Your task to perform on an android device: Open Google Chrome and open the bookmarks view Image 0: 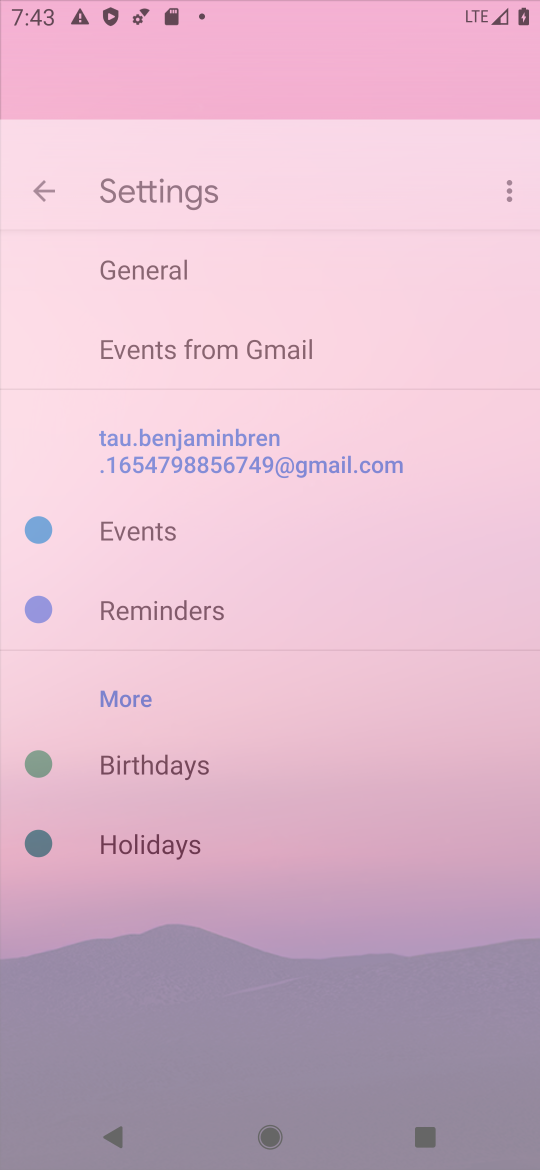
Step 0: drag from (280, 912) to (369, 386)
Your task to perform on an android device: Open Google Chrome and open the bookmarks view Image 1: 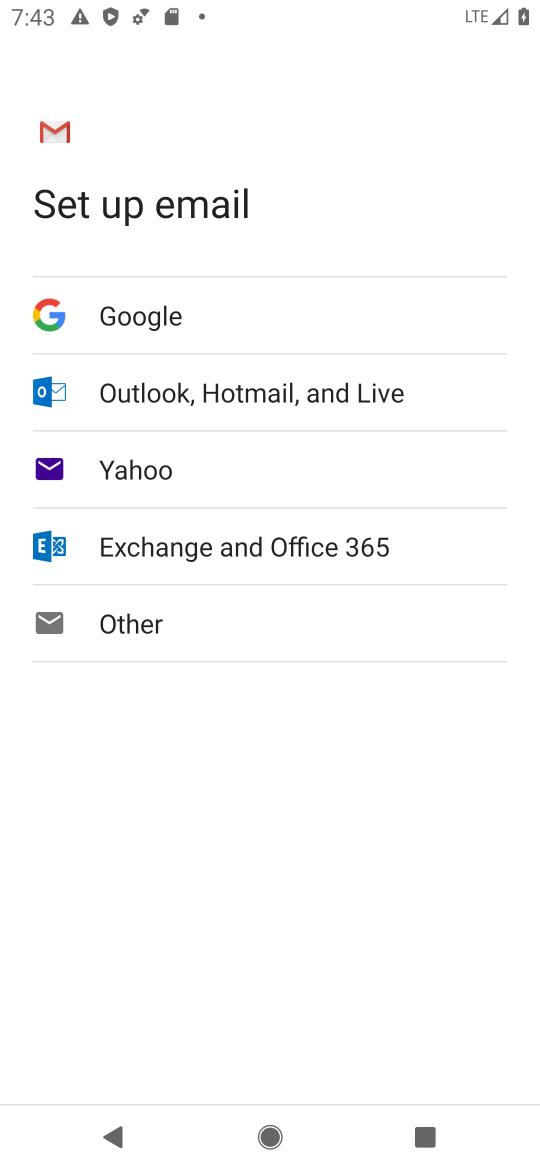
Step 1: drag from (286, 509) to (240, 712)
Your task to perform on an android device: Open Google Chrome and open the bookmarks view Image 2: 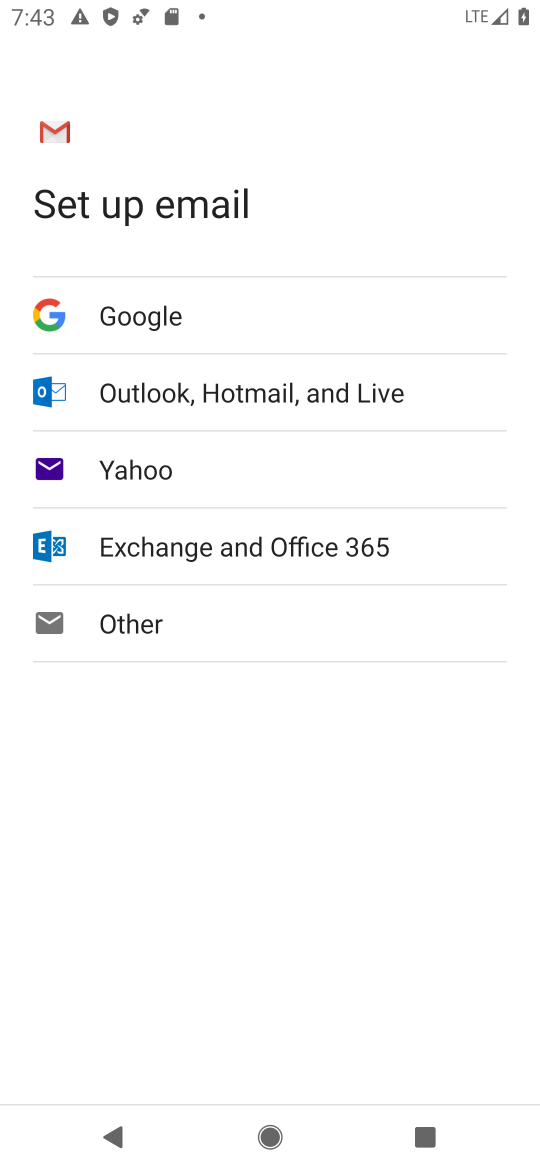
Step 2: drag from (273, 928) to (412, 589)
Your task to perform on an android device: Open Google Chrome and open the bookmarks view Image 3: 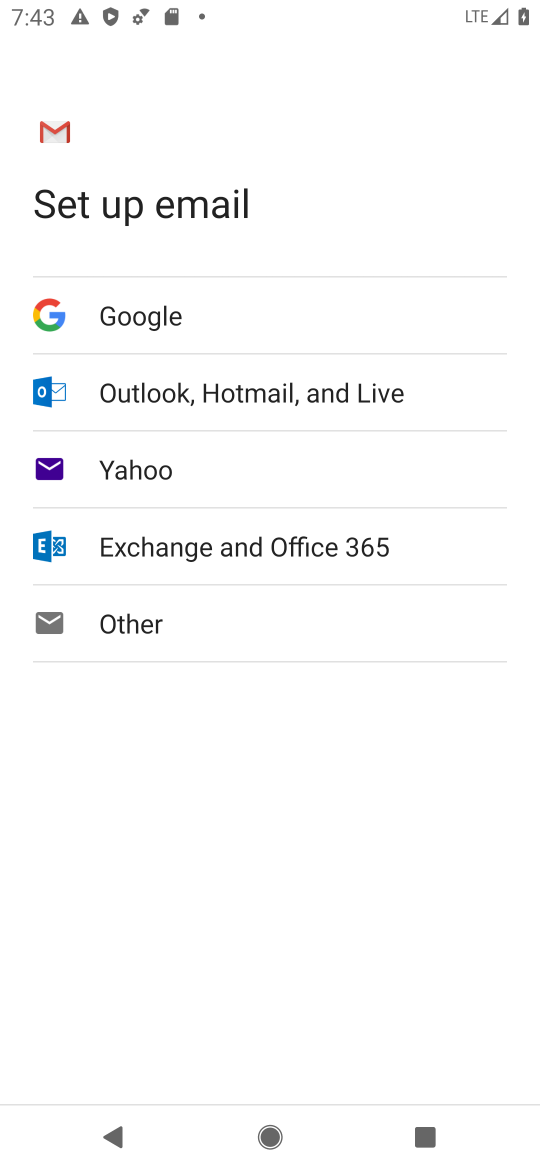
Step 3: press home button
Your task to perform on an android device: Open Google Chrome and open the bookmarks view Image 4: 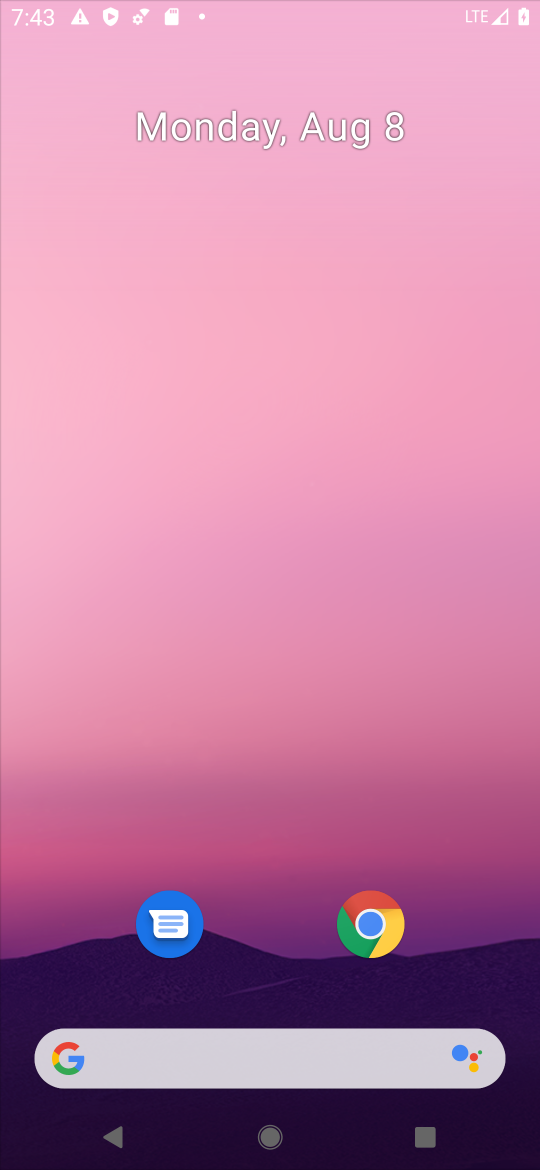
Step 4: drag from (228, 987) to (344, 441)
Your task to perform on an android device: Open Google Chrome and open the bookmarks view Image 5: 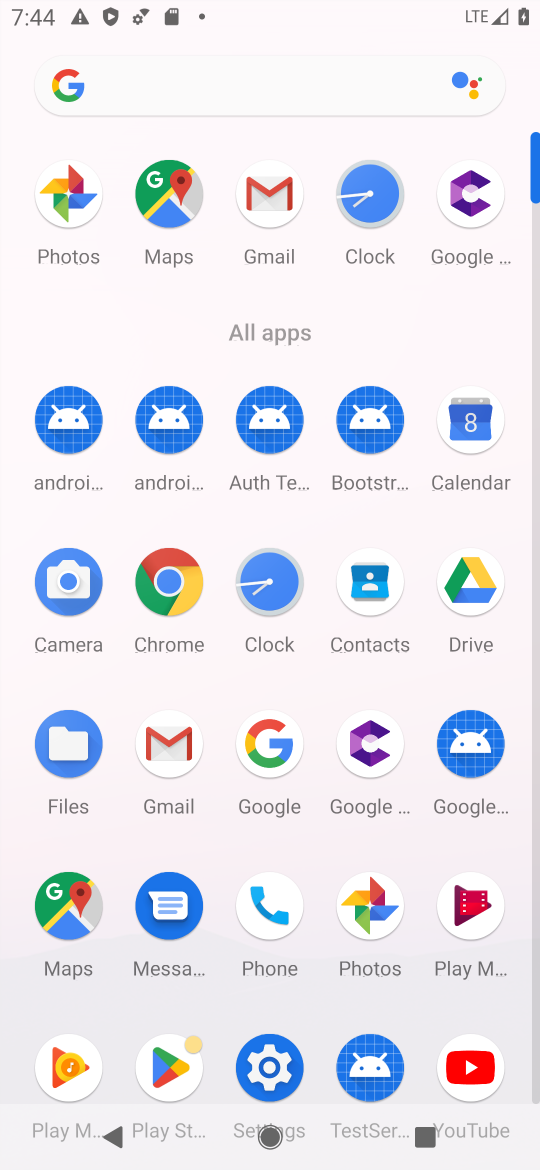
Step 5: click (163, 576)
Your task to perform on an android device: Open Google Chrome and open the bookmarks view Image 6: 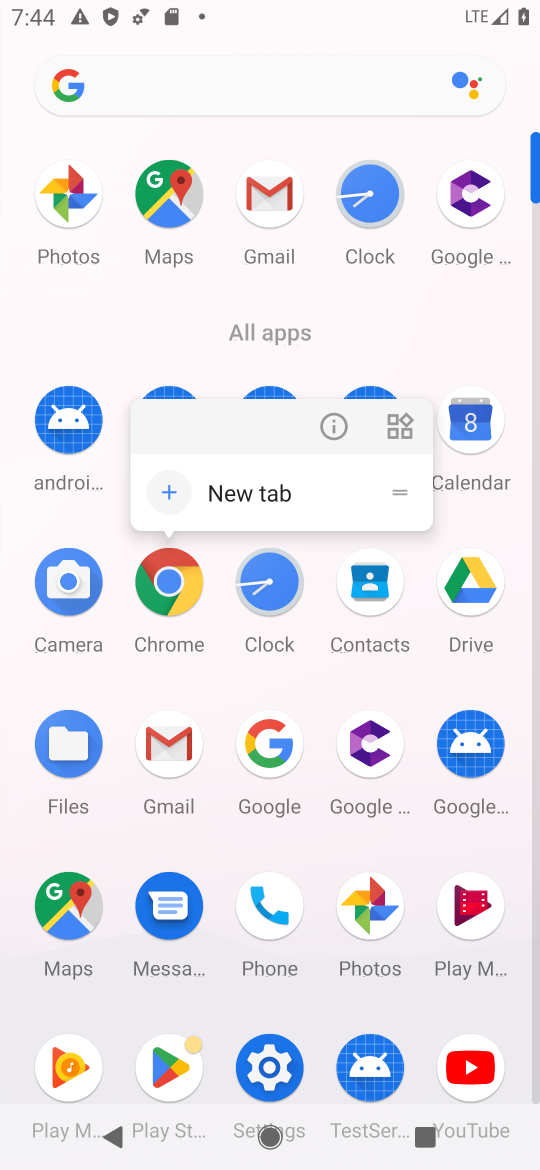
Step 6: click (327, 434)
Your task to perform on an android device: Open Google Chrome and open the bookmarks view Image 7: 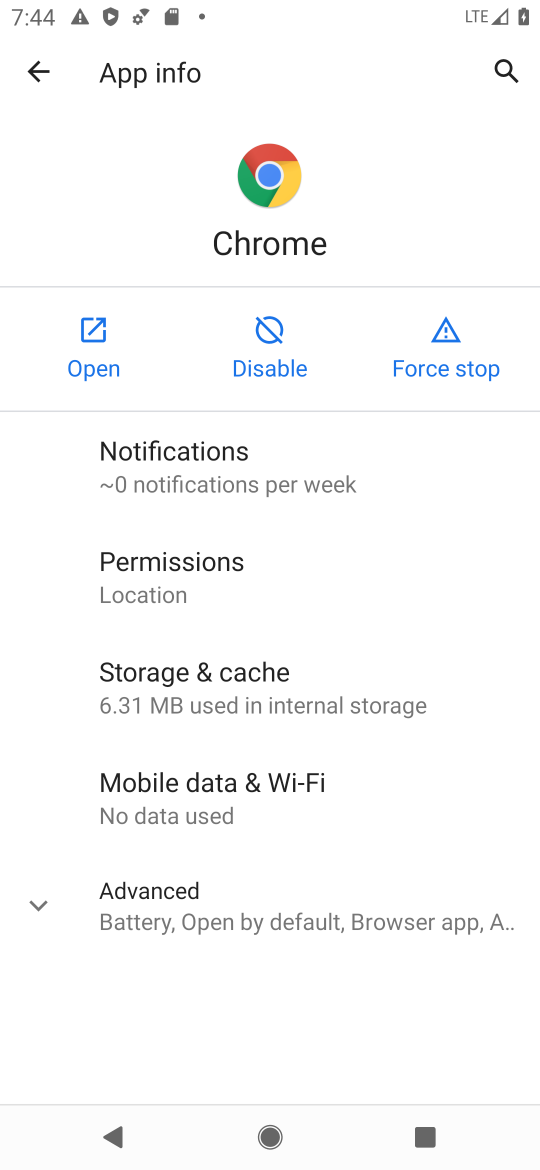
Step 7: click (82, 312)
Your task to perform on an android device: Open Google Chrome and open the bookmarks view Image 8: 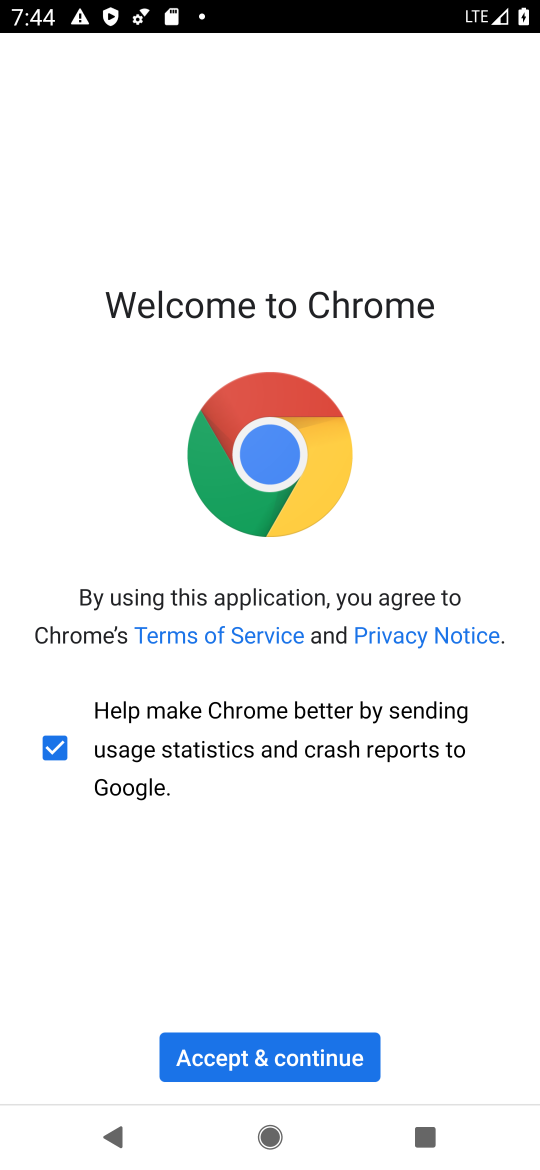
Step 8: click (228, 1075)
Your task to perform on an android device: Open Google Chrome and open the bookmarks view Image 9: 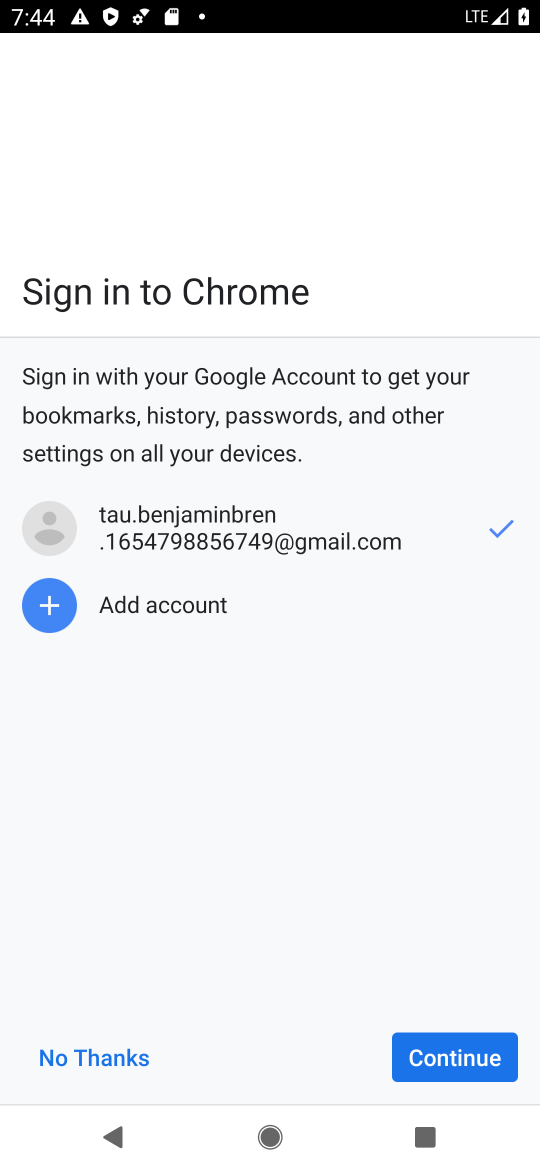
Step 9: click (459, 1040)
Your task to perform on an android device: Open Google Chrome and open the bookmarks view Image 10: 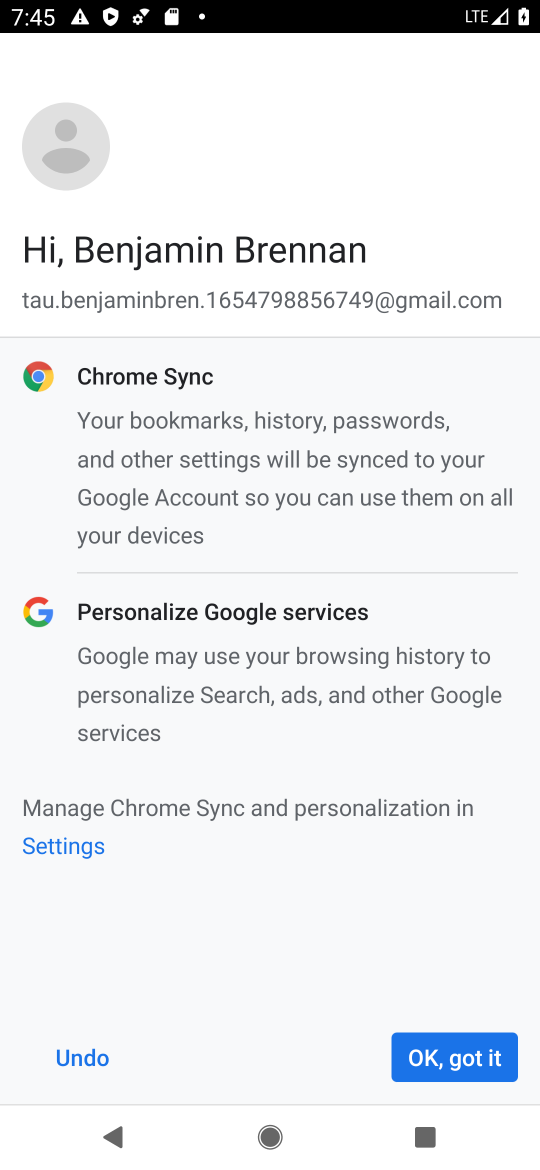
Step 10: click (433, 1046)
Your task to perform on an android device: Open Google Chrome and open the bookmarks view Image 11: 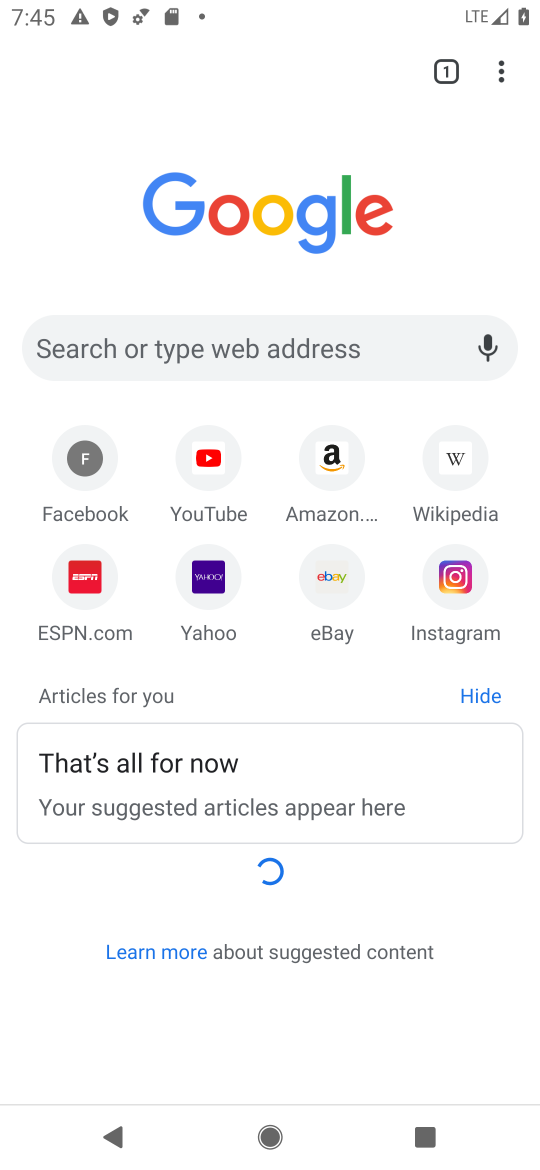
Step 11: task complete